Your task to perform on an android device: Find coffee shops on Maps Image 0: 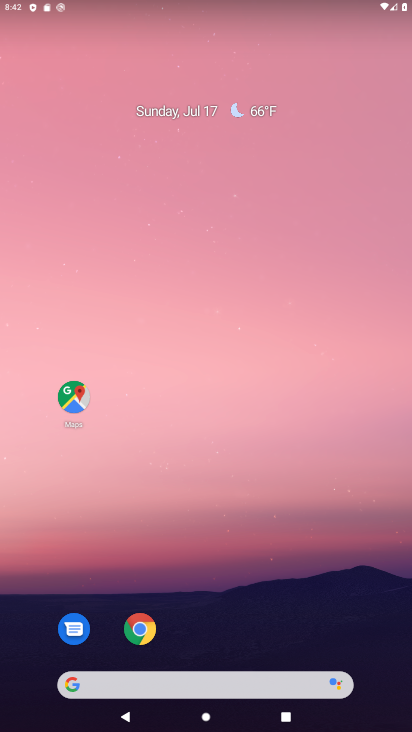
Step 0: press home button
Your task to perform on an android device: Find coffee shops on Maps Image 1: 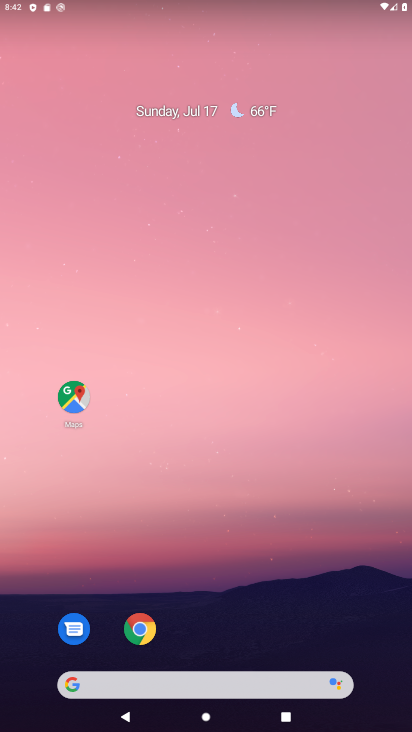
Step 1: click (68, 394)
Your task to perform on an android device: Find coffee shops on Maps Image 2: 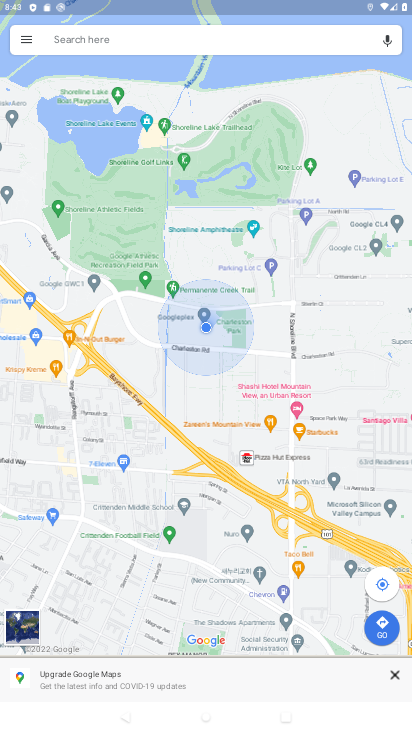
Step 2: click (97, 32)
Your task to perform on an android device: Find coffee shops on Maps Image 3: 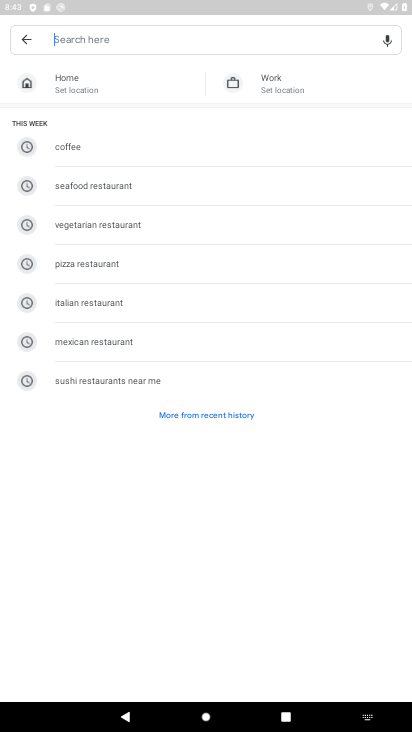
Step 3: click (71, 147)
Your task to perform on an android device: Find coffee shops on Maps Image 4: 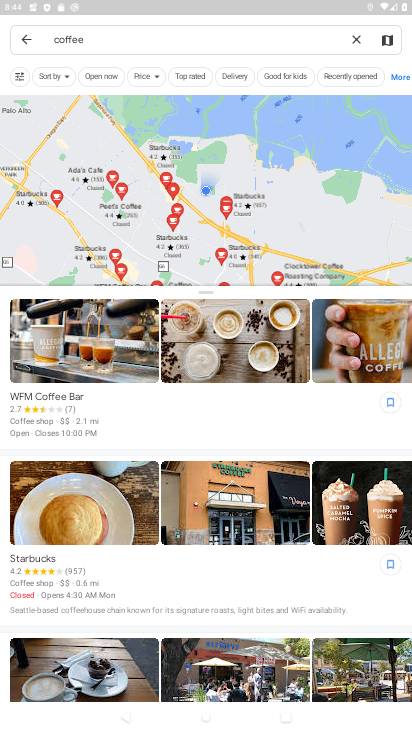
Step 4: task complete